Your task to perform on an android device: toggle improve location accuracy Image 0: 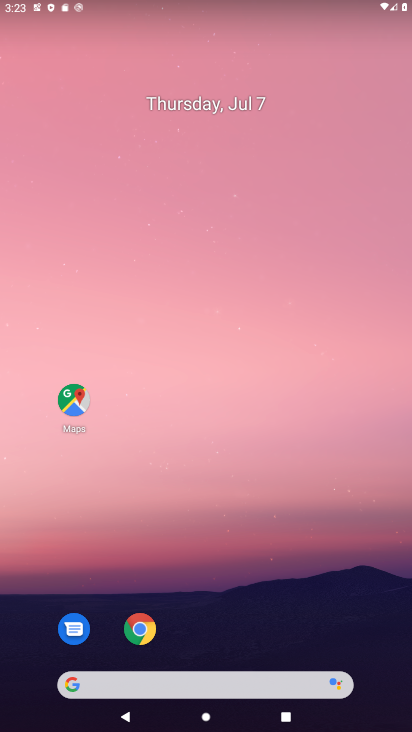
Step 0: drag from (217, 386) to (196, 277)
Your task to perform on an android device: toggle improve location accuracy Image 1: 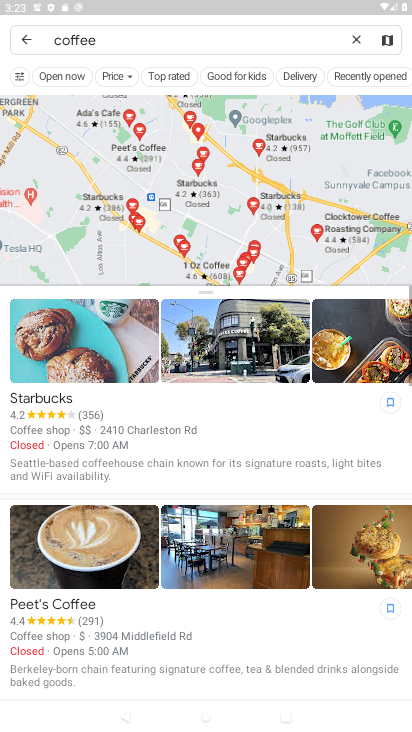
Step 1: press home button
Your task to perform on an android device: toggle improve location accuracy Image 2: 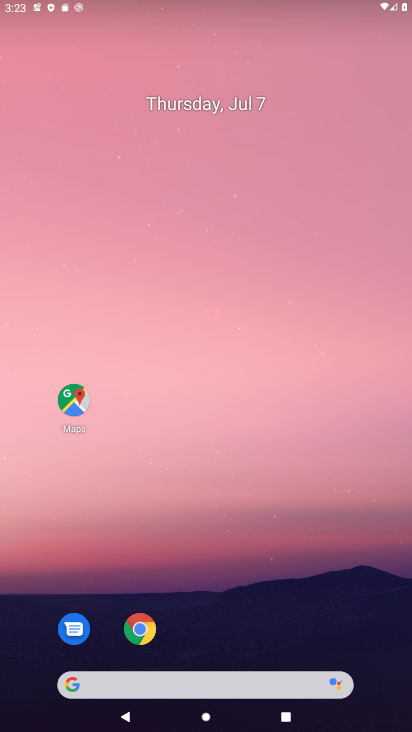
Step 2: drag from (238, 613) to (231, 146)
Your task to perform on an android device: toggle improve location accuracy Image 3: 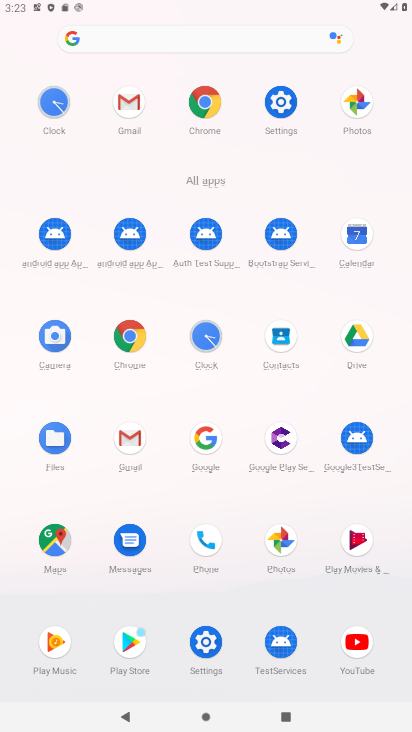
Step 3: click (268, 104)
Your task to perform on an android device: toggle improve location accuracy Image 4: 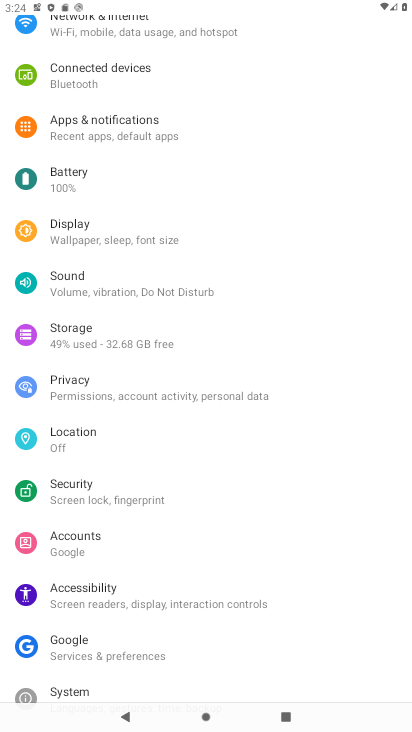
Step 4: click (104, 432)
Your task to perform on an android device: toggle improve location accuracy Image 5: 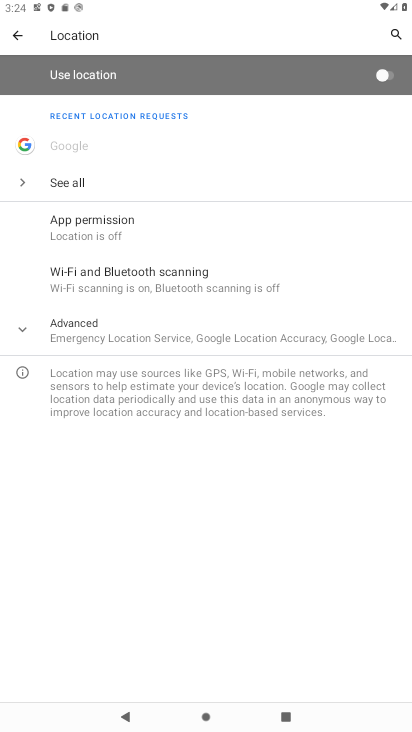
Step 5: click (146, 319)
Your task to perform on an android device: toggle improve location accuracy Image 6: 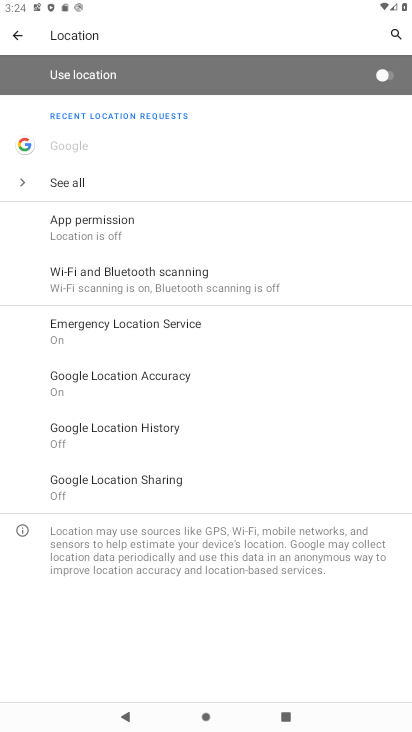
Step 6: click (163, 375)
Your task to perform on an android device: toggle improve location accuracy Image 7: 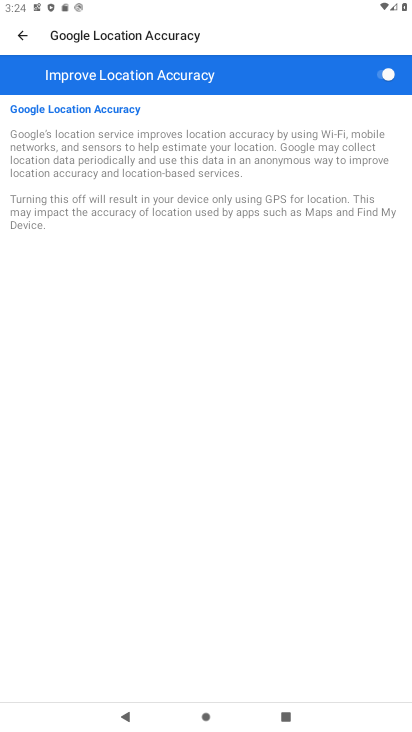
Step 7: click (390, 82)
Your task to perform on an android device: toggle improve location accuracy Image 8: 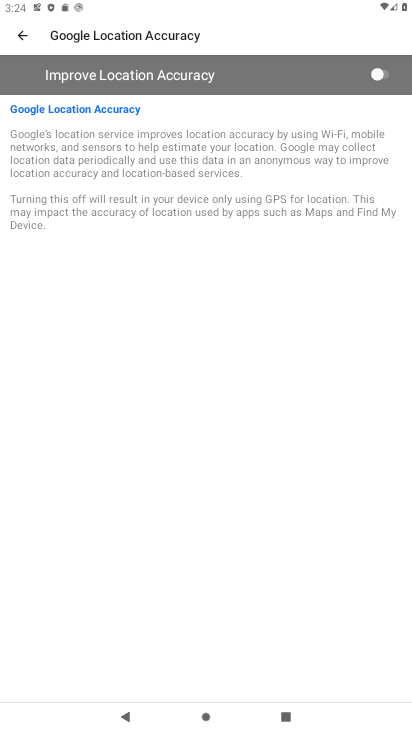
Step 8: task complete